Your task to perform on an android device: toggle notifications settings in the gmail app Image 0: 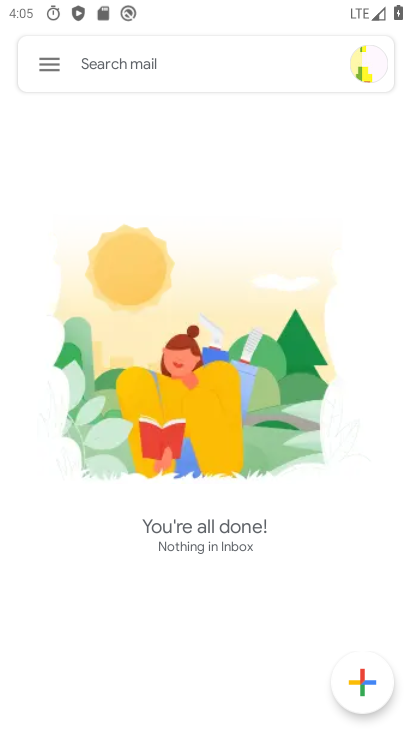
Step 0: press home button
Your task to perform on an android device: toggle notifications settings in the gmail app Image 1: 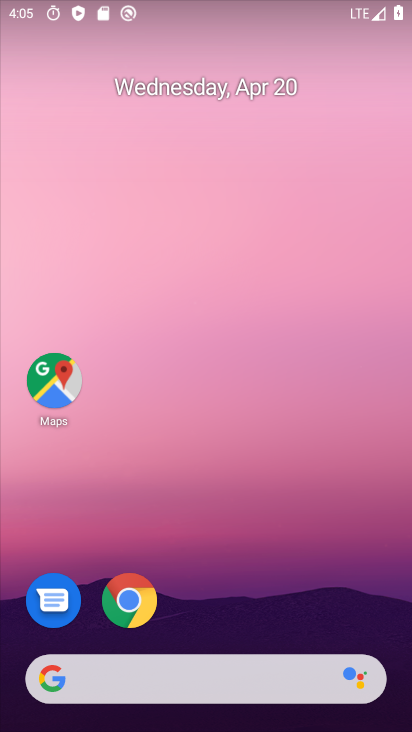
Step 1: click (135, 595)
Your task to perform on an android device: toggle notifications settings in the gmail app Image 2: 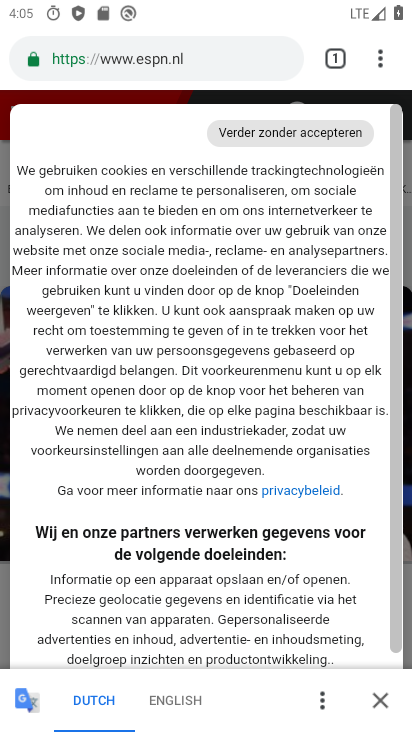
Step 2: click (166, 59)
Your task to perform on an android device: toggle notifications settings in the gmail app Image 3: 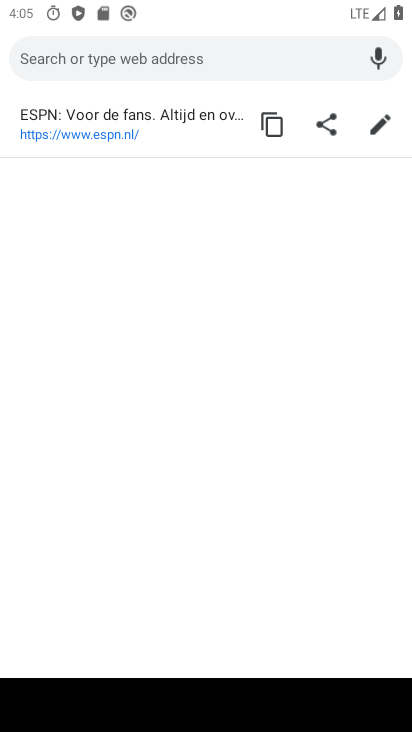
Step 3: press home button
Your task to perform on an android device: toggle notifications settings in the gmail app Image 4: 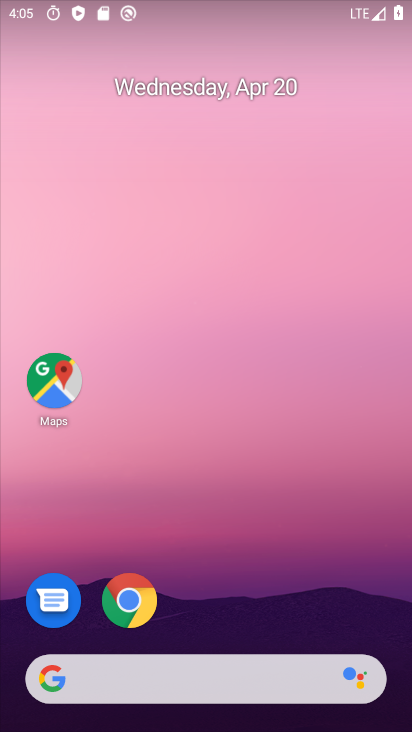
Step 4: drag from (297, 156) to (307, 62)
Your task to perform on an android device: toggle notifications settings in the gmail app Image 5: 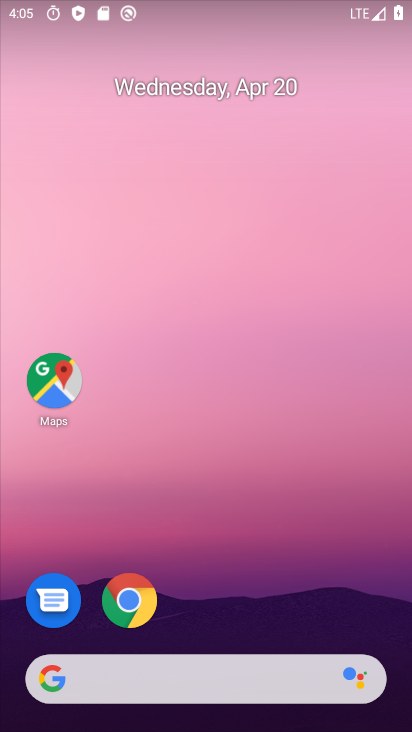
Step 5: drag from (218, 260) to (246, 32)
Your task to perform on an android device: toggle notifications settings in the gmail app Image 6: 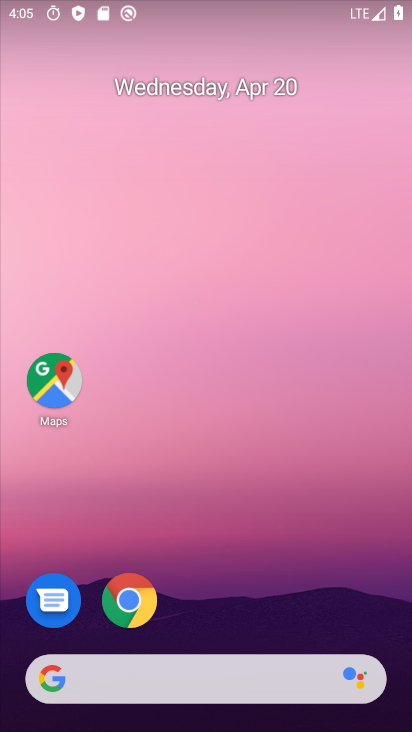
Step 6: drag from (260, 620) to (289, 50)
Your task to perform on an android device: toggle notifications settings in the gmail app Image 7: 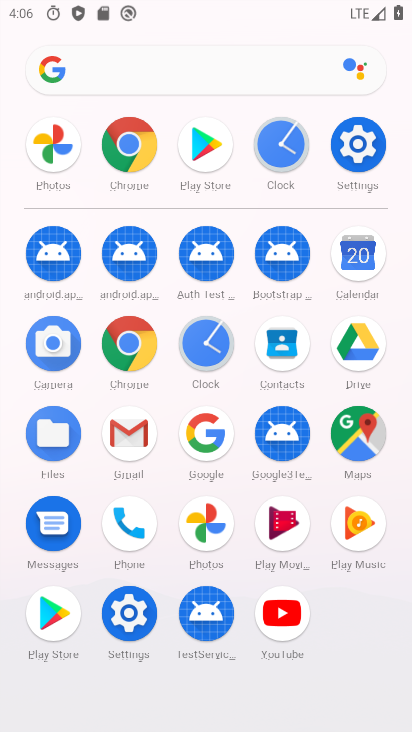
Step 7: click (124, 445)
Your task to perform on an android device: toggle notifications settings in the gmail app Image 8: 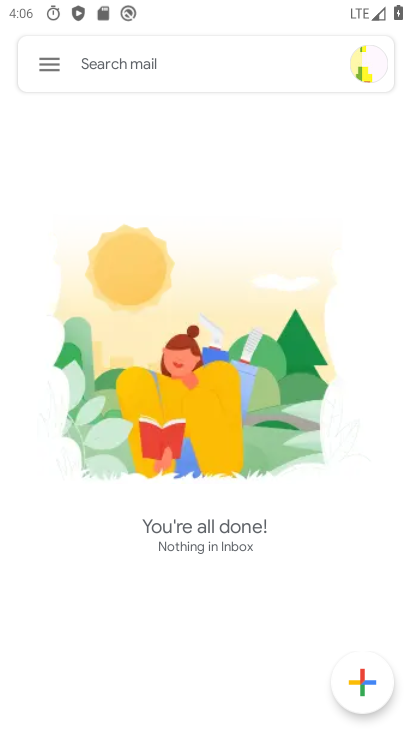
Step 8: click (44, 72)
Your task to perform on an android device: toggle notifications settings in the gmail app Image 9: 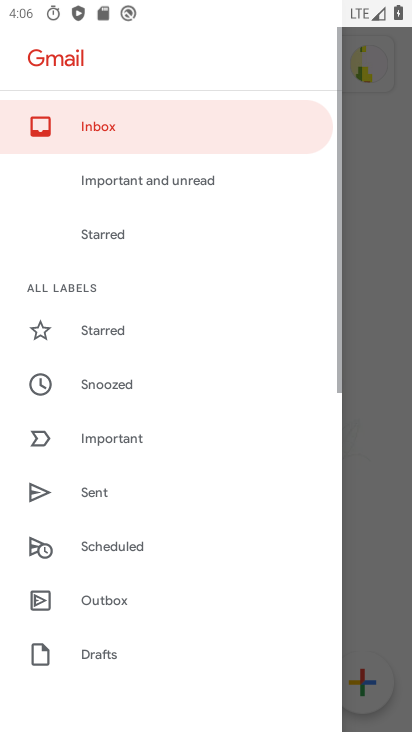
Step 9: drag from (177, 665) to (224, 234)
Your task to perform on an android device: toggle notifications settings in the gmail app Image 10: 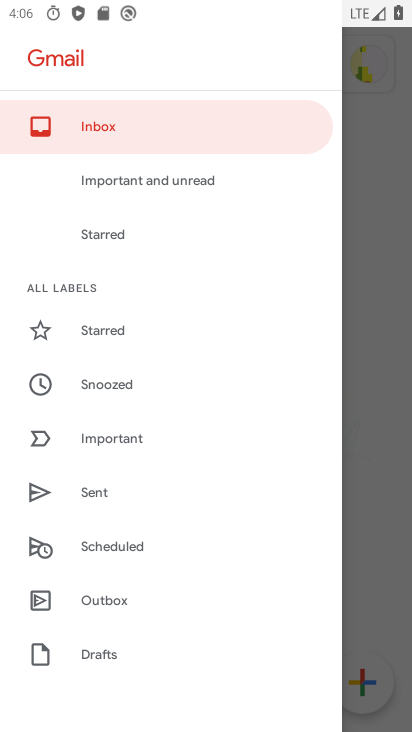
Step 10: drag from (67, 559) to (165, 238)
Your task to perform on an android device: toggle notifications settings in the gmail app Image 11: 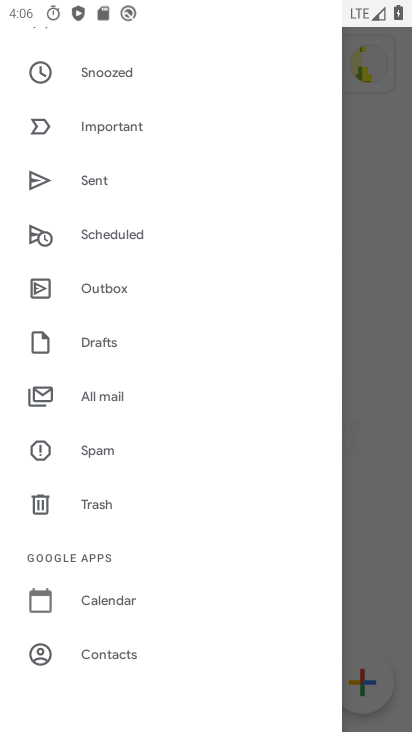
Step 11: drag from (97, 636) to (210, 326)
Your task to perform on an android device: toggle notifications settings in the gmail app Image 12: 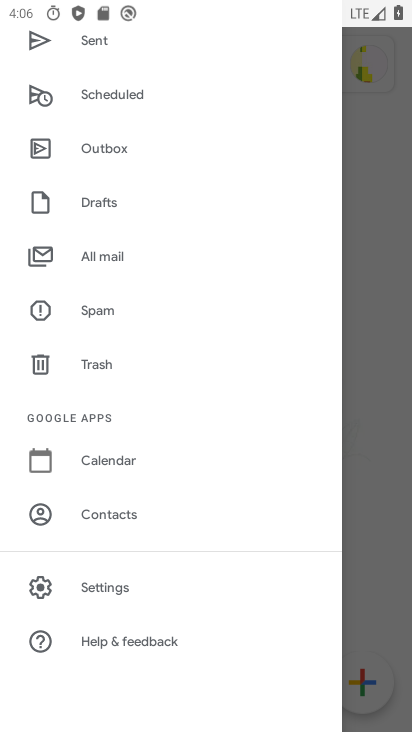
Step 12: click (97, 596)
Your task to perform on an android device: toggle notifications settings in the gmail app Image 13: 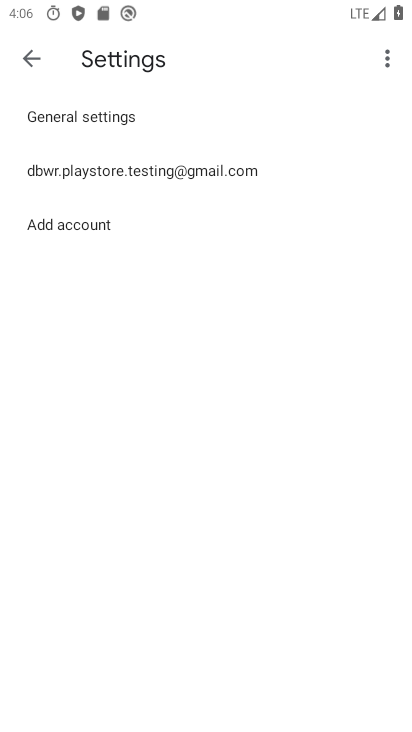
Step 13: click (219, 176)
Your task to perform on an android device: toggle notifications settings in the gmail app Image 14: 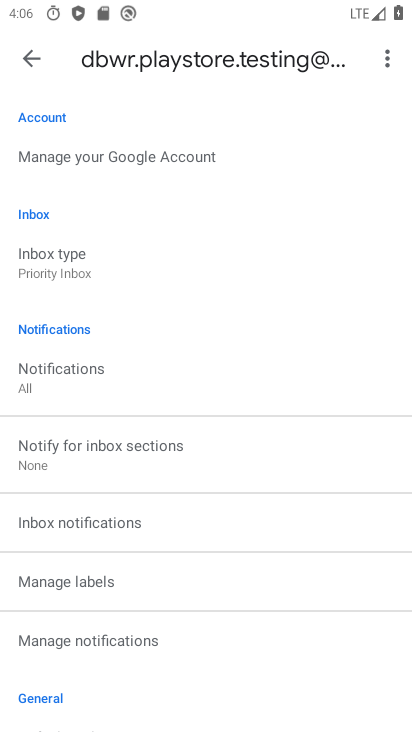
Step 14: click (94, 624)
Your task to perform on an android device: toggle notifications settings in the gmail app Image 15: 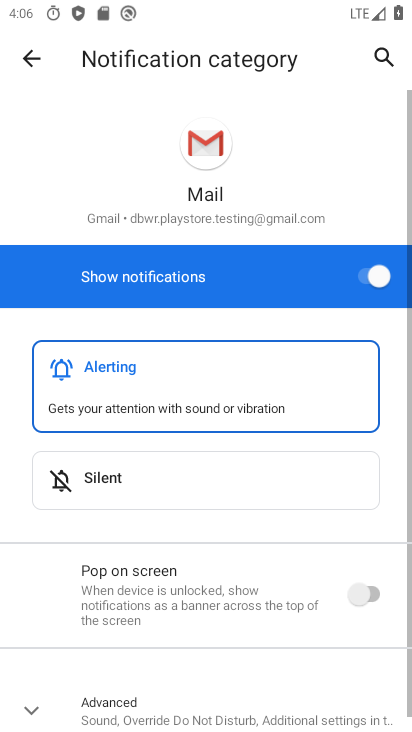
Step 15: click (295, 280)
Your task to perform on an android device: toggle notifications settings in the gmail app Image 16: 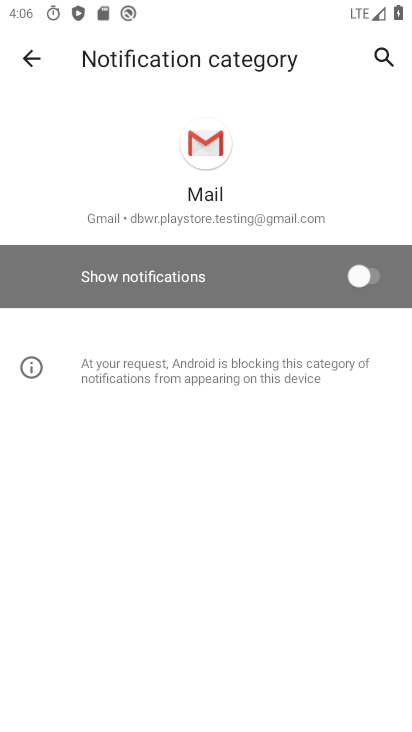
Step 16: task complete